Your task to perform on an android device: see tabs open on other devices in the chrome app Image 0: 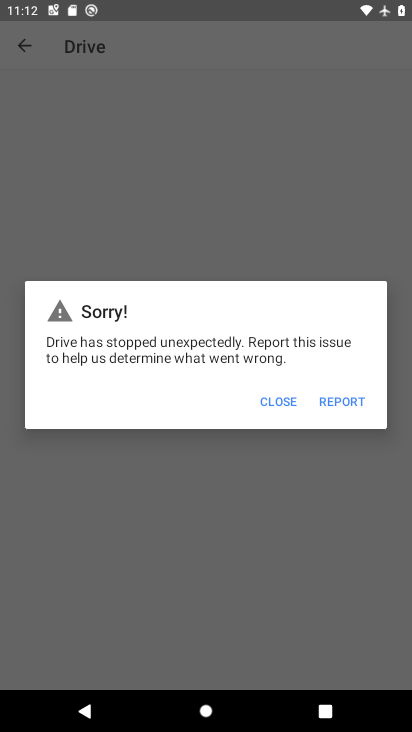
Step 0: press home button
Your task to perform on an android device: see tabs open on other devices in the chrome app Image 1: 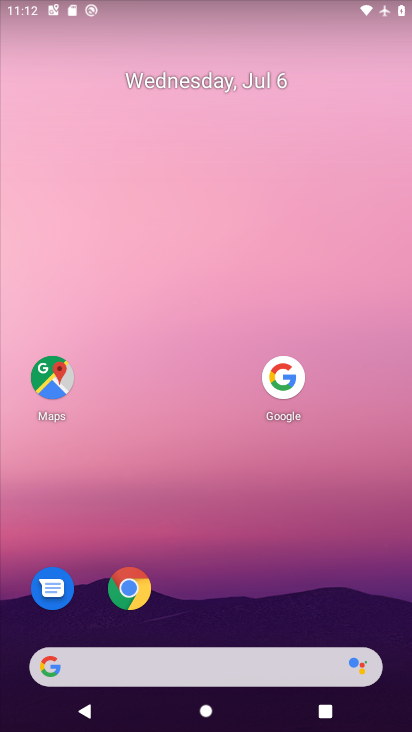
Step 1: drag from (177, 668) to (288, 261)
Your task to perform on an android device: see tabs open on other devices in the chrome app Image 2: 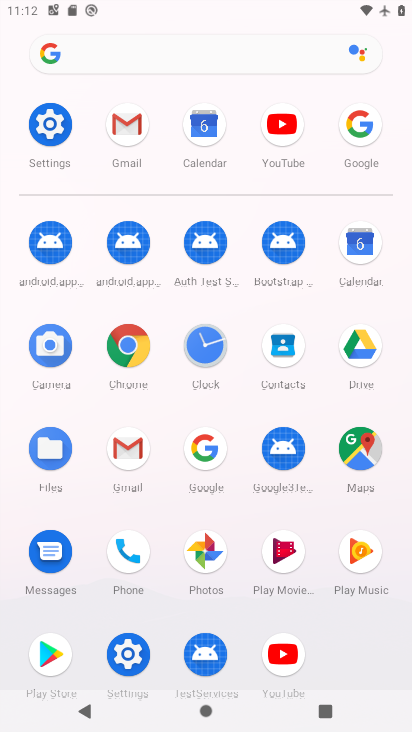
Step 2: click (128, 339)
Your task to perform on an android device: see tabs open on other devices in the chrome app Image 3: 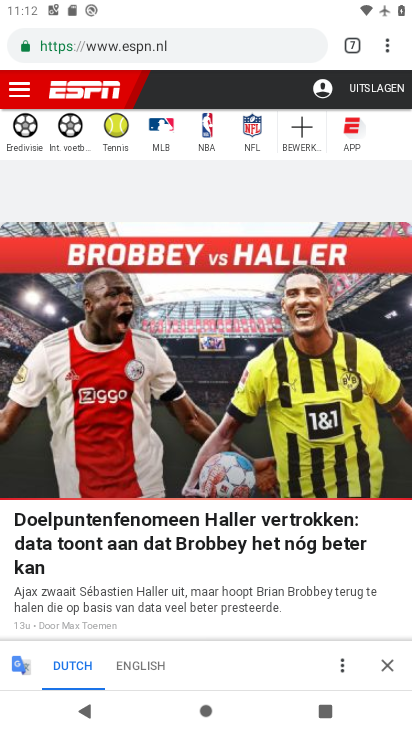
Step 3: click (385, 57)
Your task to perform on an android device: see tabs open on other devices in the chrome app Image 4: 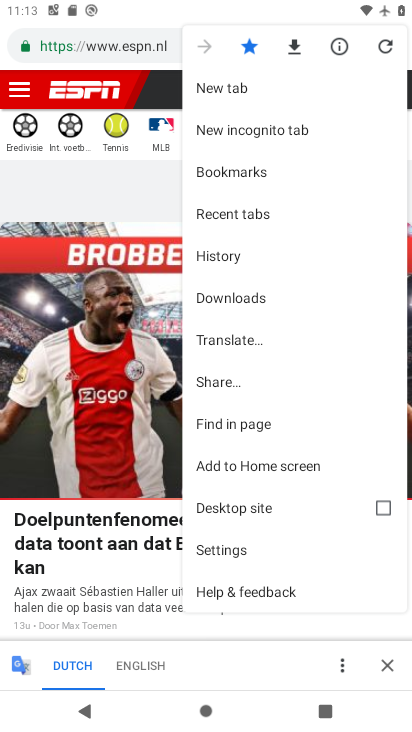
Step 4: click (256, 217)
Your task to perform on an android device: see tabs open on other devices in the chrome app Image 5: 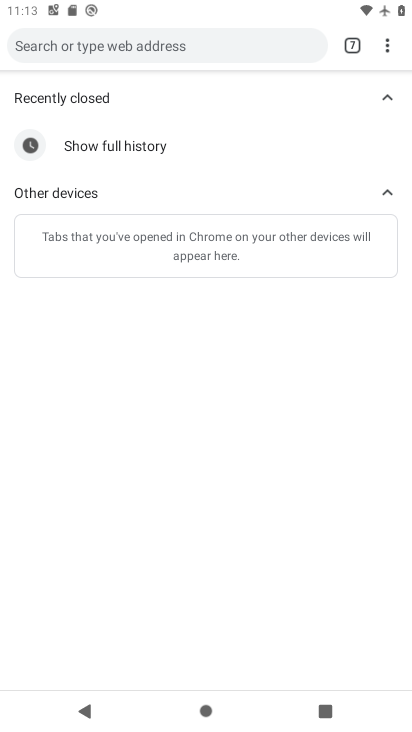
Step 5: task complete